Your task to perform on an android device: turn on showing notifications on the lock screen Image 0: 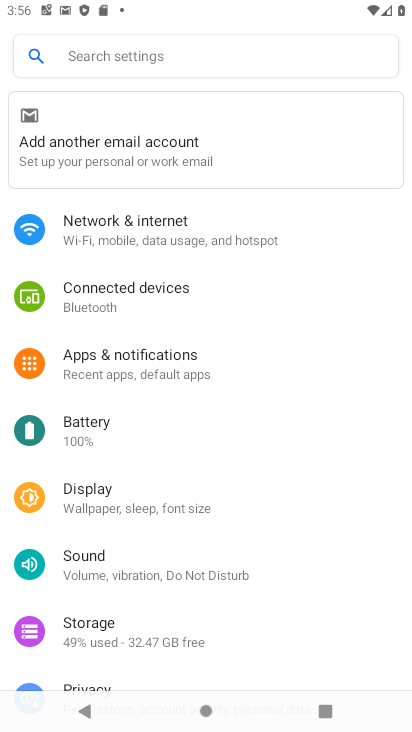
Step 0: click (100, 364)
Your task to perform on an android device: turn on showing notifications on the lock screen Image 1: 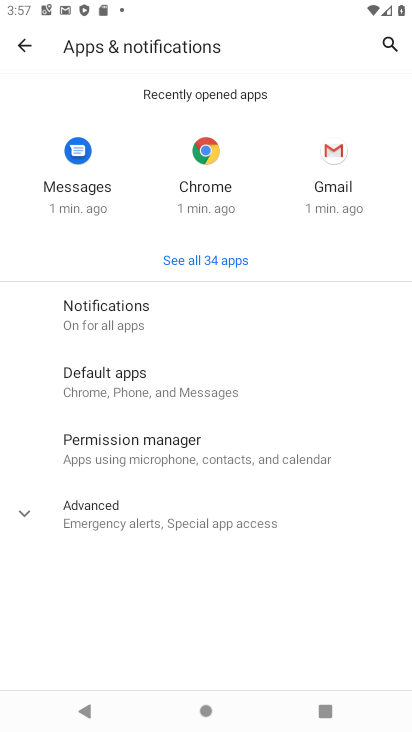
Step 1: click (134, 323)
Your task to perform on an android device: turn on showing notifications on the lock screen Image 2: 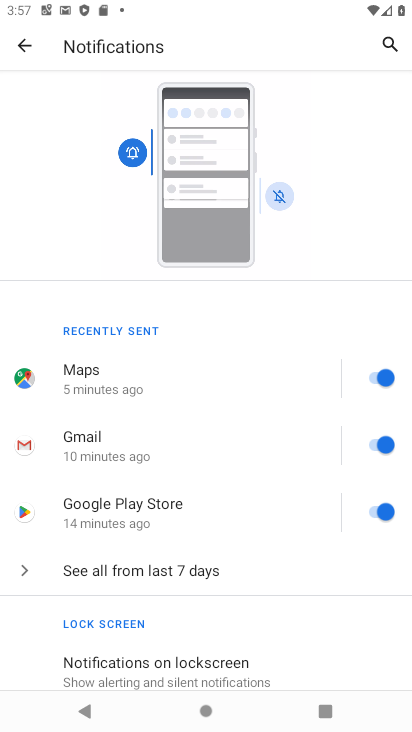
Step 2: click (129, 667)
Your task to perform on an android device: turn on showing notifications on the lock screen Image 3: 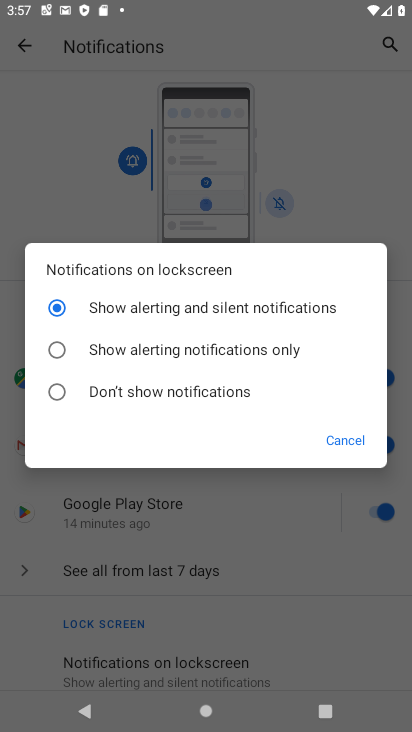
Step 3: task complete